Your task to perform on an android device: Empty the shopping cart on walmart. Search for logitech g903 on walmart, select the first entry, add it to the cart, then select checkout. Image 0: 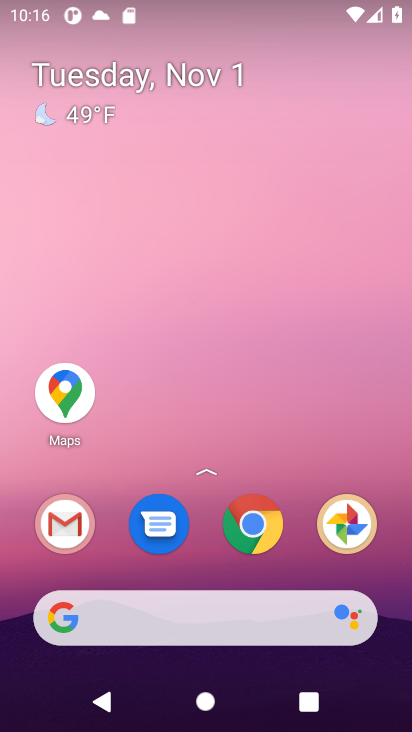
Step 0: press home button
Your task to perform on an android device: Empty the shopping cart on walmart. Search for logitech g903 on walmart, select the first entry, add it to the cart, then select checkout. Image 1: 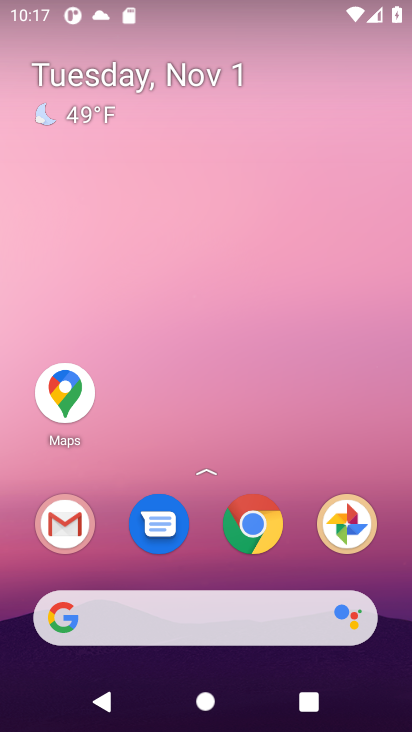
Step 1: click (105, 617)
Your task to perform on an android device: Empty the shopping cart on walmart. Search for logitech g903 on walmart, select the first entry, add it to the cart, then select checkout. Image 2: 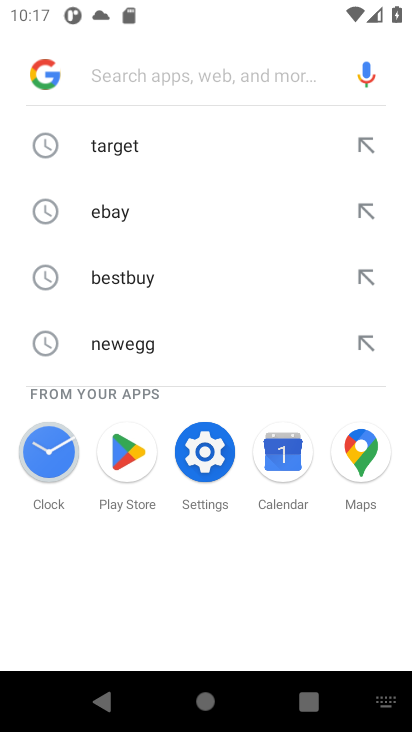
Step 2: type "walmart"
Your task to perform on an android device: Empty the shopping cart on walmart. Search for logitech g903 on walmart, select the first entry, add it to the cart, then select checkout. Image 3: 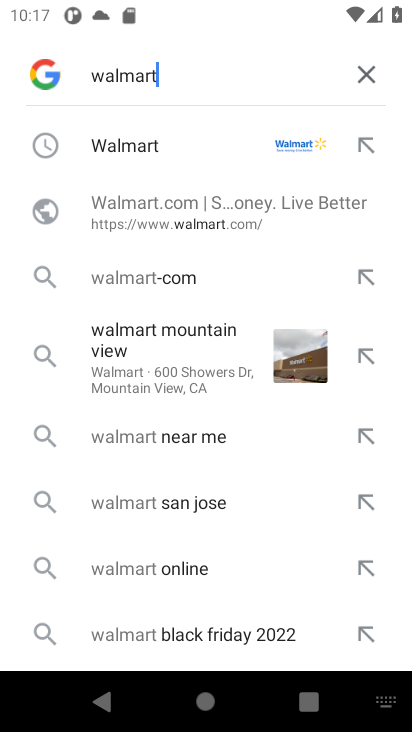
Step 3: press enter
Your task to perform on an android device: Empty the shopping cart on walmart. Search for logitech g903 on walmart, select the first entry, add it to the cart, then select checkout. Image 4: 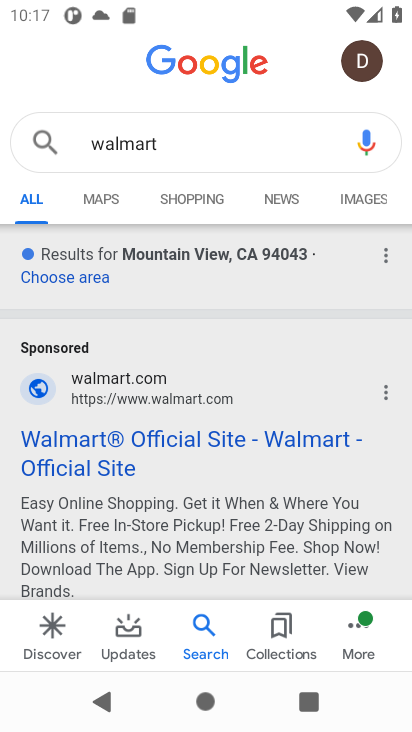
Step 4: click (170, 431)
Your task to perform on an android device: Empty the shopping cart on walmart. Search for logitech g903 on walmart, select the first entry, add it to the cart, then select checkout. Image 5: 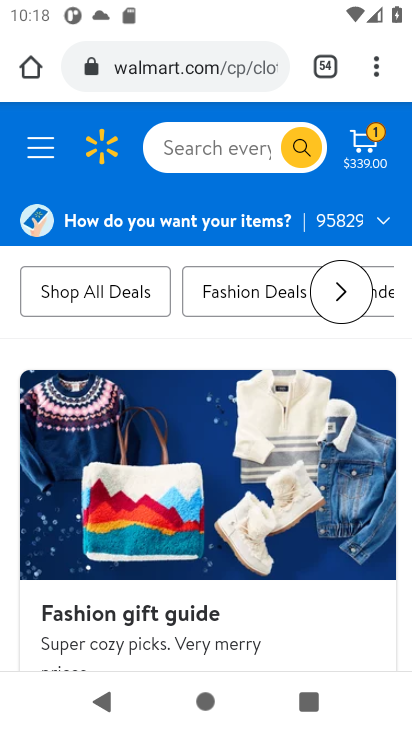
Step 5: click (365, 131)
Your task to perform on an android device: Empty the shopping cart on walmart. Search for logitech g903 on walmart, select the first entry, add it to the cart, then select checkout. Image 6: 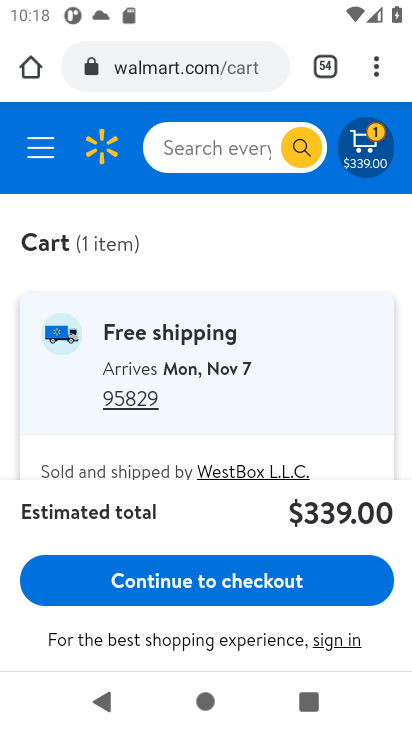
Step 6: drag from (95, 408) to (87, 204)
Your task to perform on an android device: Empty the shopping cart on walmart. Search for logitech g903 on walmart, select the first entry, add it to the cart, then select checkout. Image 7: 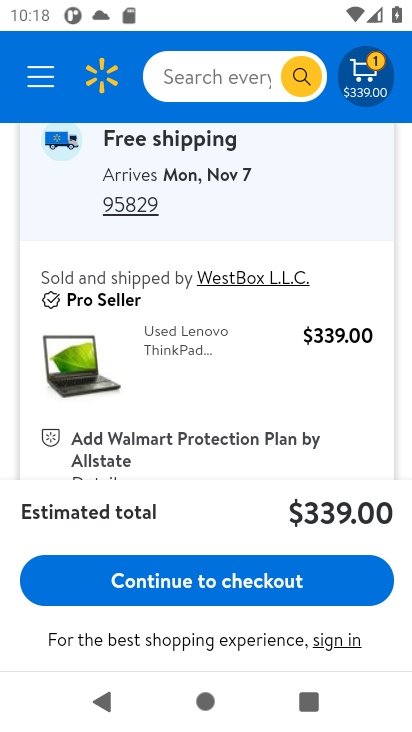
Step 7: drag from (128, 430) to (126, 201)
Your task to perform on an android device: Empty the shopping cart on walmart. Search for logitech g903 on walmart, select the first entry, add it to the cart, then select checkout. Image 8: 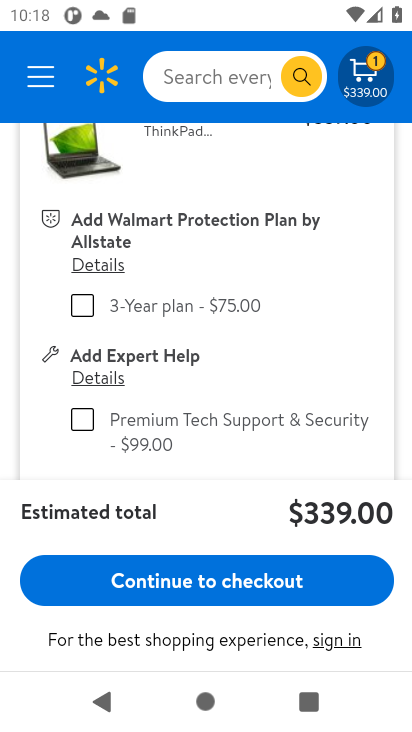
Step 8: drag from (150, 429) to (147, 191)
Your task to perform on an android device: Empty the shopping cart on walmart. Search for logitech g903 on walmart, select the first entry, add it to the cart, then select checkout. Image 9: 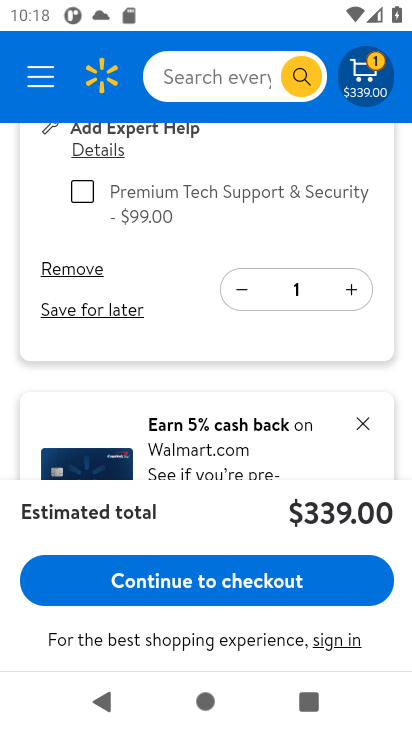
Step 9: click (65, 268)
Your task to perform on an android device: Empty the shopping cart on walmart. Search for logitech g903 on walmart, select the first entry, add it to the cart, then select checkout. Image 10: 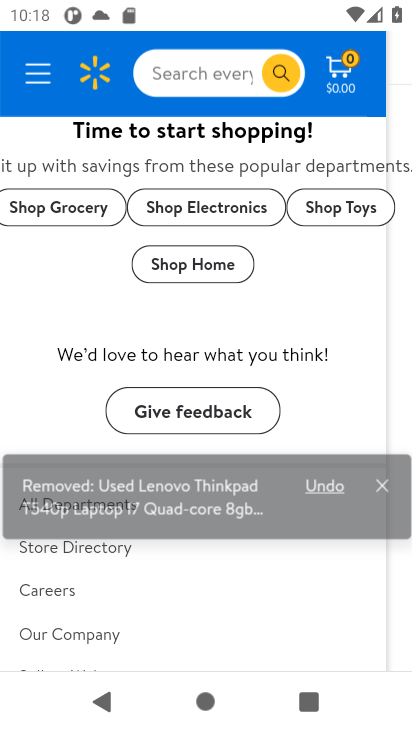
Step 10: click (380, 482)
Your task to perform on an android device: Empty the shopping cart on walmart. Search for logitech g903 on walmart, select the first entry, add it to the cart, then select checkout. Image 11: 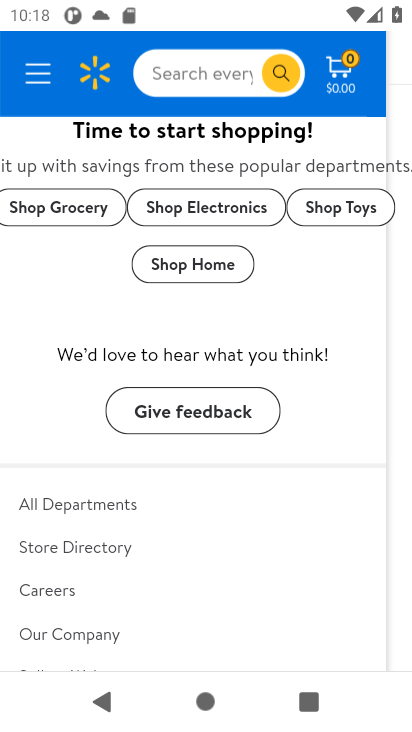
Step 11: click (182, 64)
Your task to perform on an android device: Empty the shopping cart on walmart. Search for logitech g903 on walmart, select the first entry, add it to the cart, then select checkout. Image 12: 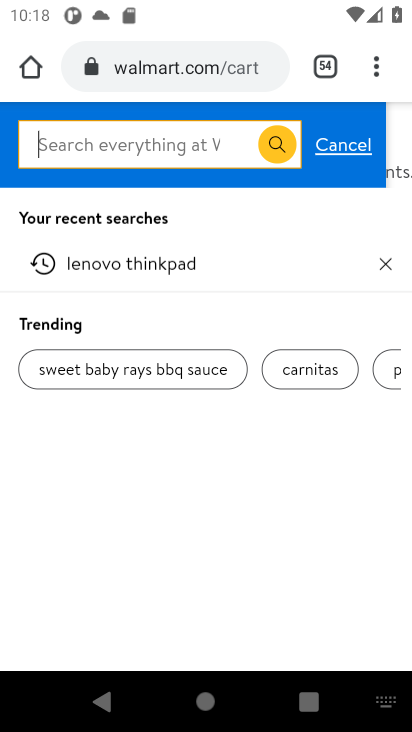
Step 12: click (97, 141)
Your task to perform on an android device: Empty the shopping cart on walmart. Search for logitech g903 on walmart, select the first entry, add it to the cart, then select checkout. Image 13: 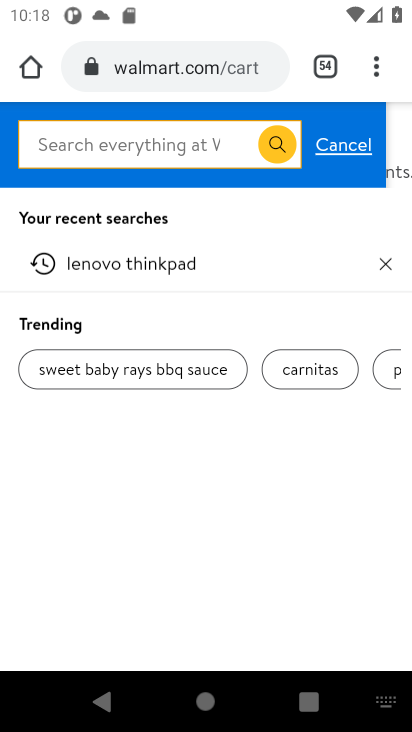
Step 13: type " logitech g903 "
Your task to perform on an android device: Empty the shopping cart on walmart. Search for logitech g903 on walmart, select the first entry, add it to the cart, then select checkout. Image 14: 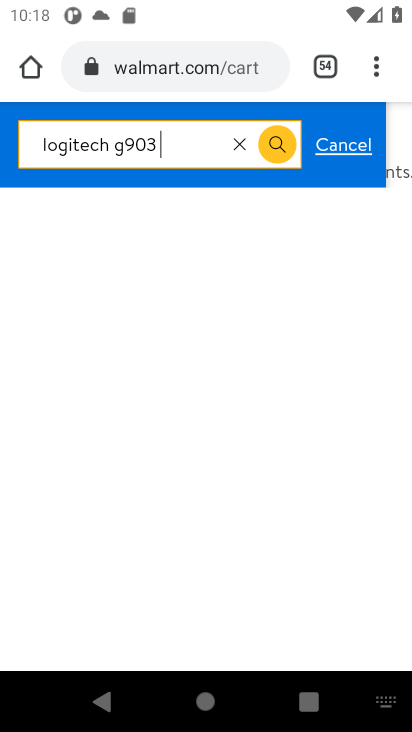
Step 14: press enter
Your task to perform on an android device: Empty the shopping cart on walmart. Search for logitech g903 on walmart, select the first entry, add it to the cart, then select checkout. Image 15: 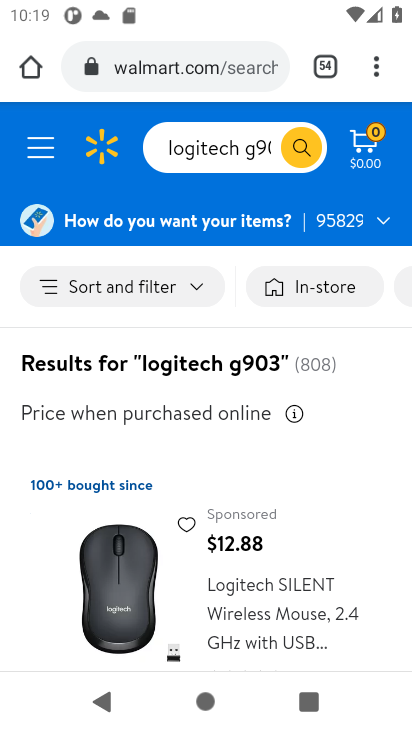
Step 15: drag from (312, 598) to (309, 363)
Your task to perform on an android device: Empty the shopping cart on walmart. Search for logitech g903 on walmart, select the first entry, add it to the cart, then select checkout. Image 16: 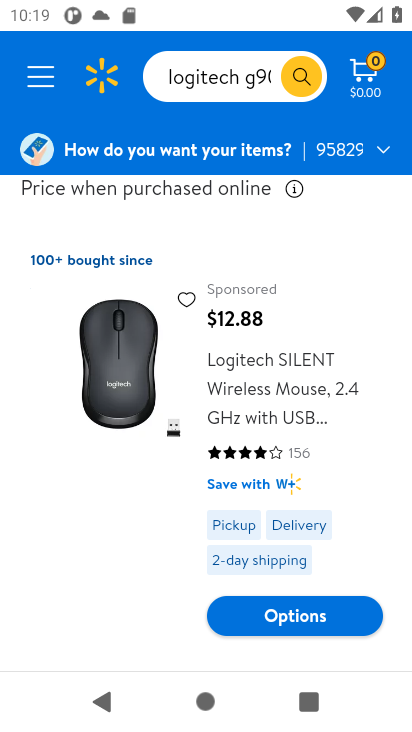
Step 16: drag from (335, 513) to (330, 194)
Your task to perform on an android device: Empty the shopping cart on walmart. Search for logitech g903 on walmart, select the first entry, add it to the cart, then select checkout. Image 17: 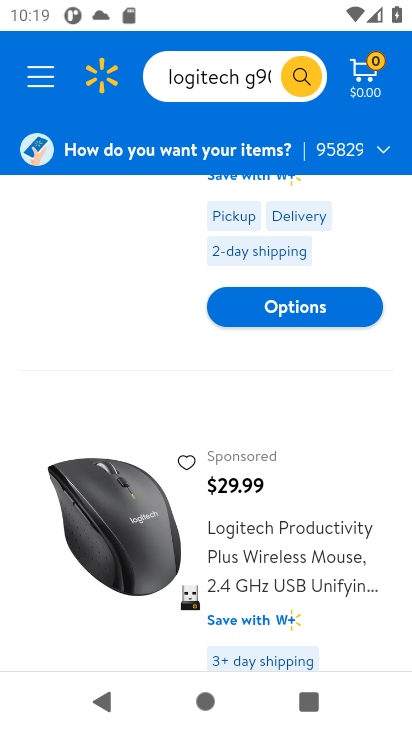
Step 17: drag from (322, 605) to (323, 308)
Your task to perform on an android device: Empty the shopping cart on walmart. Search for logitech g903 on walmart, select the first entry, add it to the cart, then select checkout. Image 18: 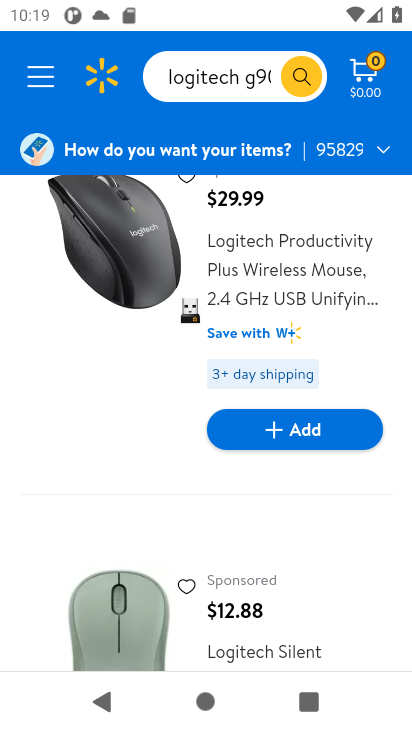
Step 18: drag from (359, 538) to (376, 277)
Your task to perform on an android device: Empty the shopping cart on walmart. Search for logitech g903 on walmart, select the first entry, add it to the cart, then select checkout. Image 19: 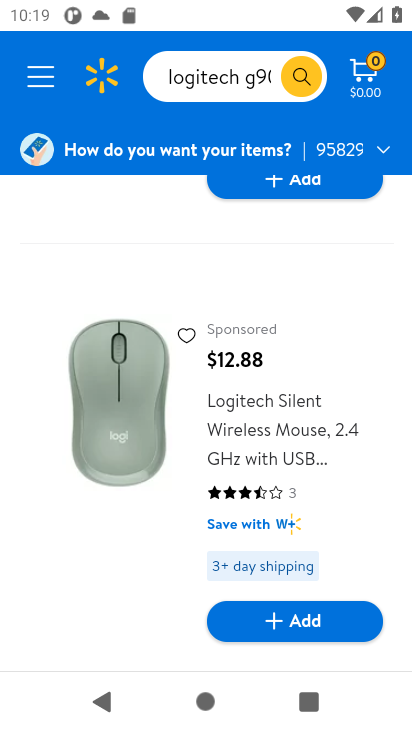
Step 19: drag from (354, 538) to (350, 280)
Your task to perform on an android device: Empty the shopping cart on walmart. Search for logitech g903 on walmart, select the first entry, add it to the cart, then select checkout. Image 20: 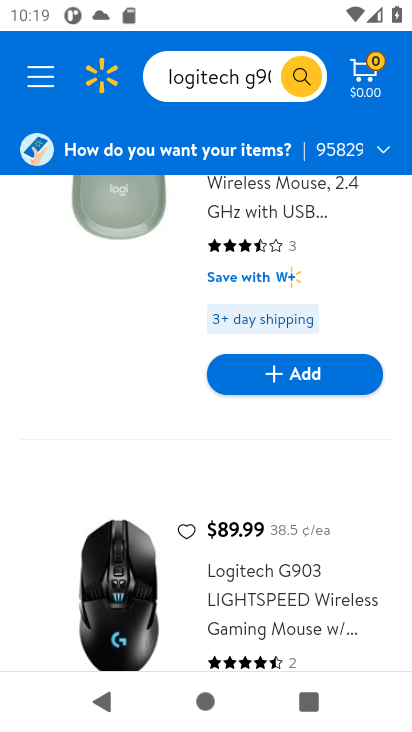
Step 20: drag from (323, 610) to (322, 355)
Your task to perform on an android device: Empty the shopping cart on walmart. Search for logitech g903 on walmart, select the first entry, add it to the cart, then select checkout. Image 21: 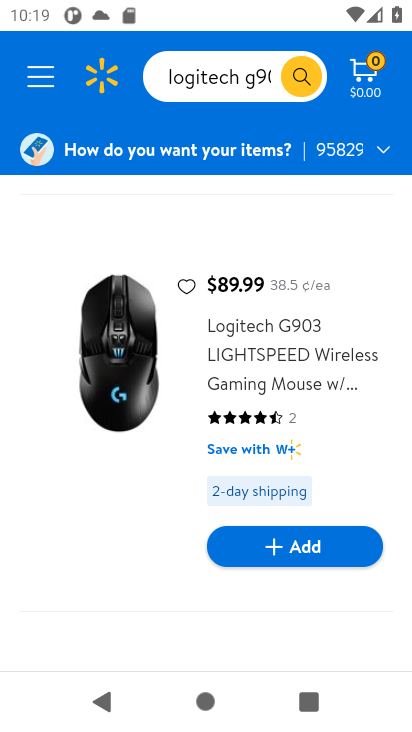
Step 21: click (303, 551)
Your task to perform on an android device: Empty the shopping cart on walmart. Search for logitech g903 on walmart, select the first entry, add it to the cart, then select checkout. Image 22: 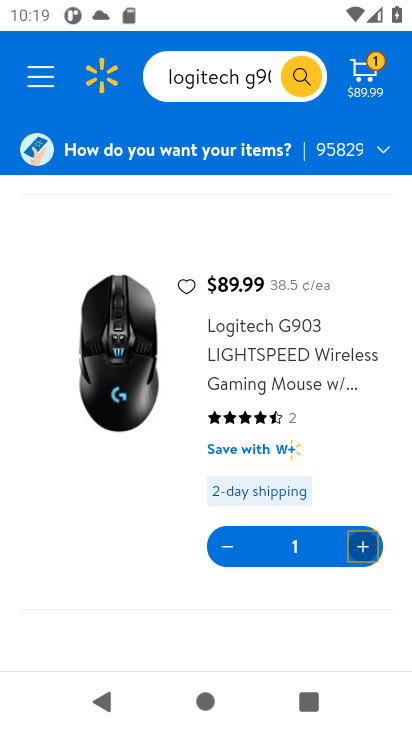
Step 22: click (365, 67)
Your task to perform on an android device: Empty the shopping cart on walmart. Search for logitech g903 on walmart, select the first entry, add it to the cart, then select checkout. Image 23: 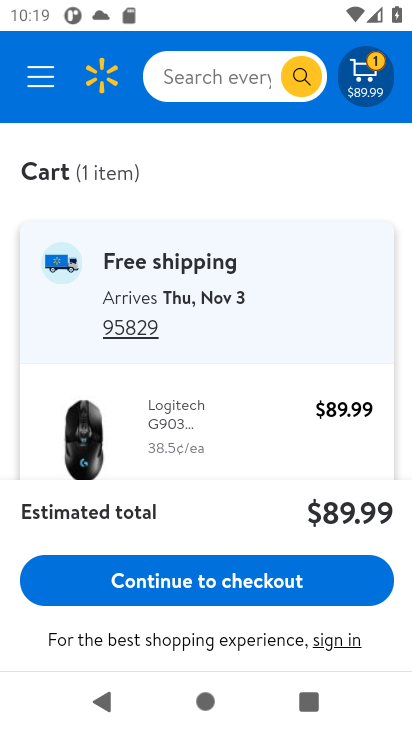
Step 23: click (255, 580)
Your task to perform on an android device: Empty the shopping cart on walmart. Search for logitech g903 on walmart, select the first entry, add it to the cart, then select checkout. Image 24: 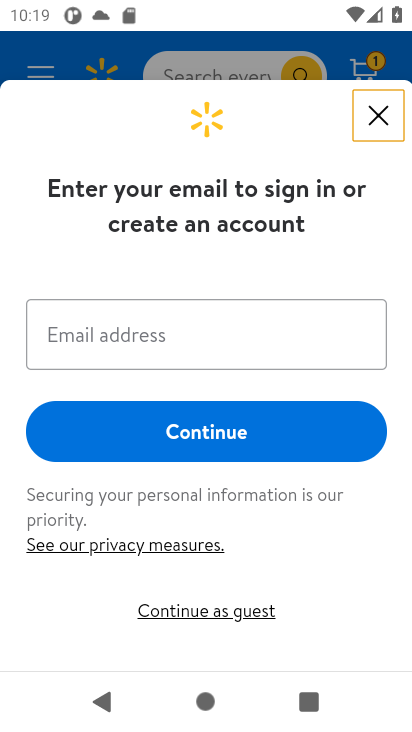
Step 24: task complete